Your task to perform on an android device: Search for the new Apple Watch on Best Buy Image 0: 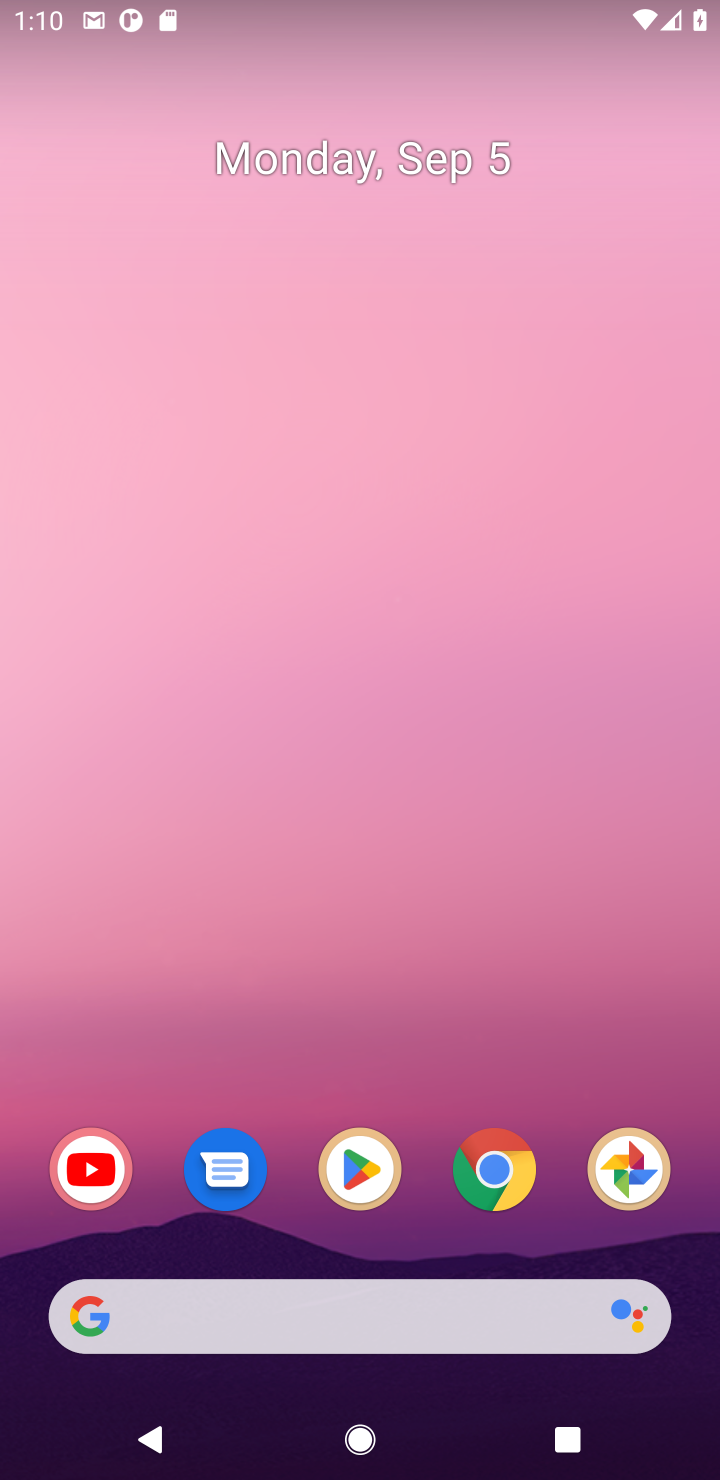
Step 0: click (352, 1124)
Your task to perform on an android device: Search for the new Apple Watch on Best Buy Image 1: 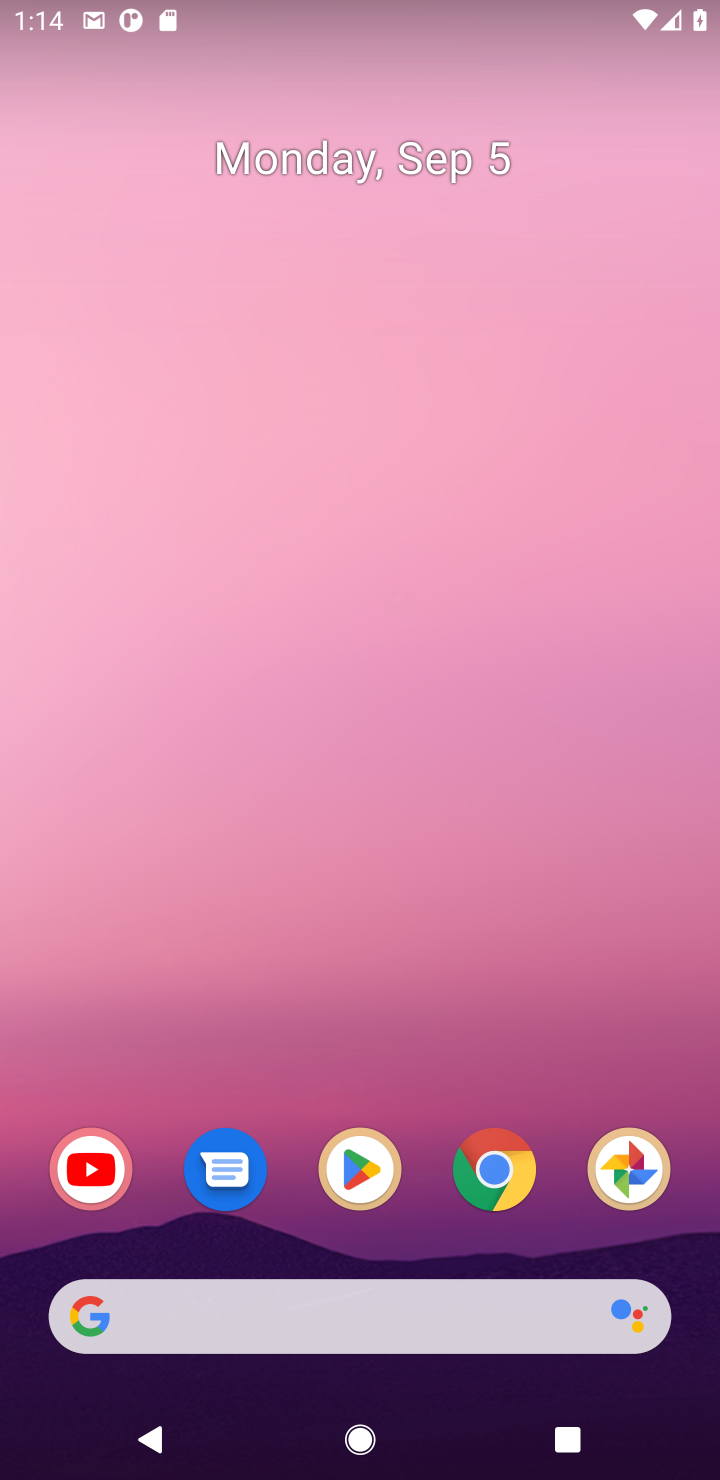
Step 1: click (337, 1183)
Your task to perform on an android device: Search for the new Apple Watch on Best Buy Image 2: 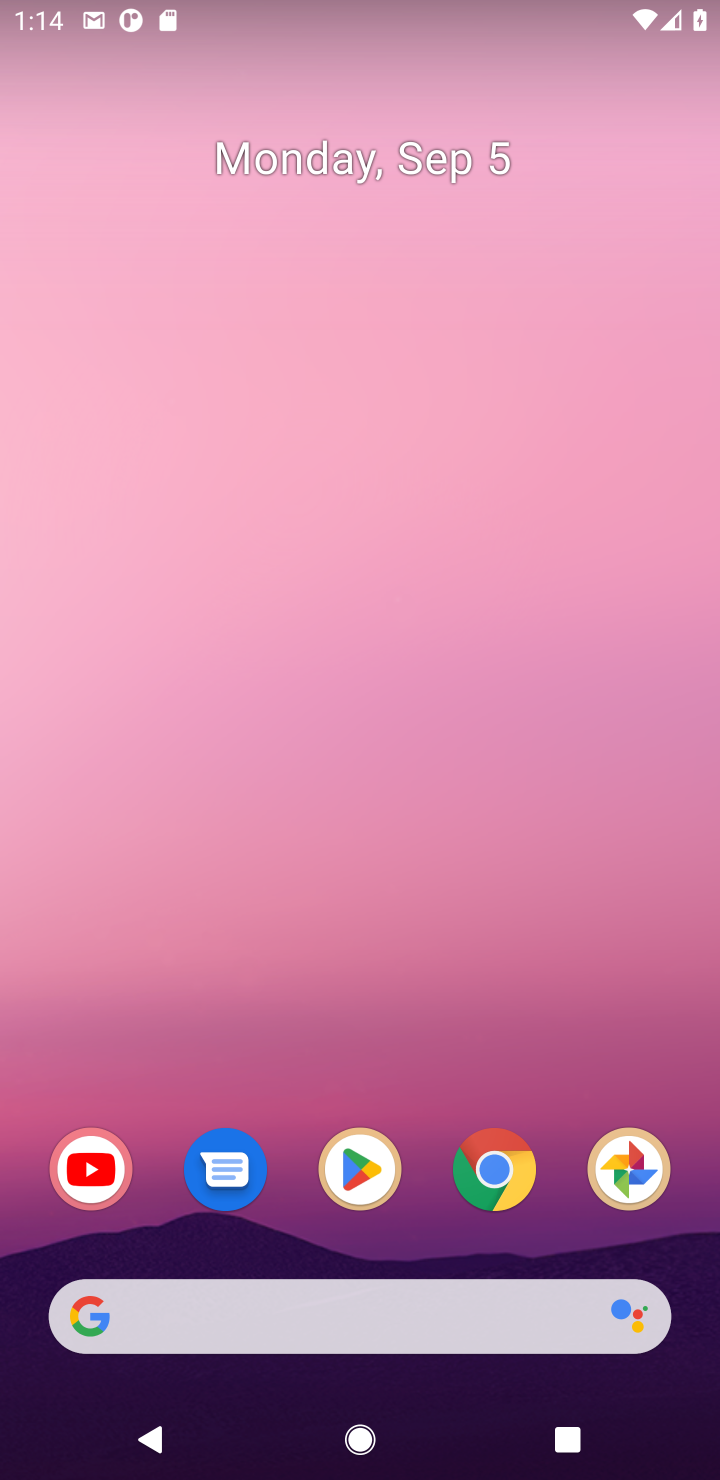
Step 2: task complete